Your task to perform on an android device: Open Yahoo.com Image 0: 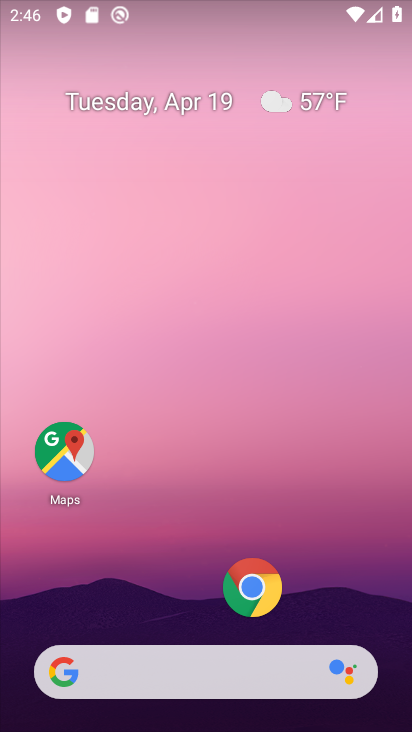
Step 0: click (252, 583)
Your task to perform on an android device: Open Yahoo.com Image 1: 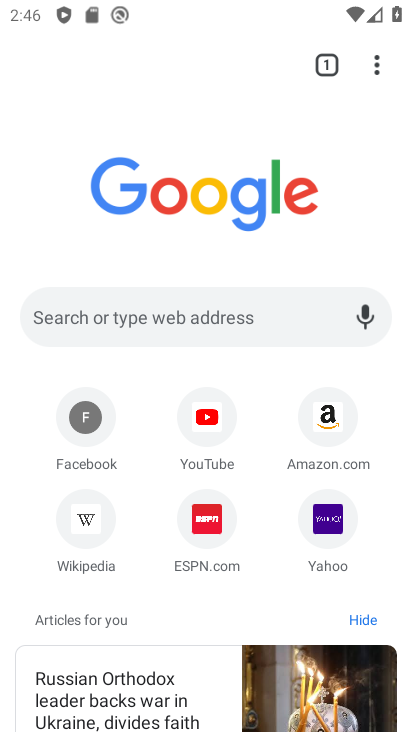
Step 1: click (343, 535)
Your task to perform on an android device: Open Yahoo.com Image 2: 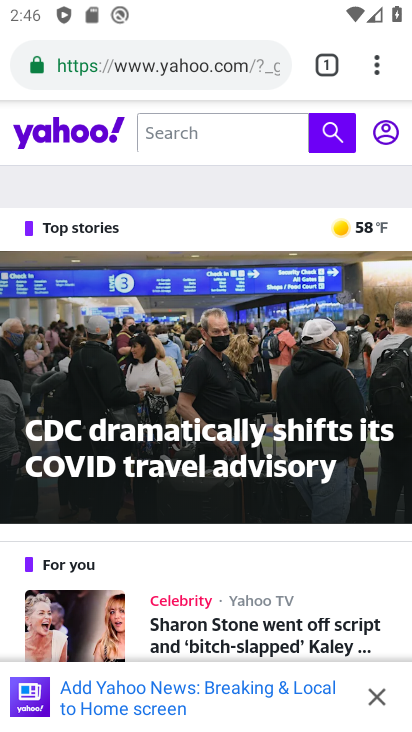
Step 2: task complete